Your task to perform on an android device: Open Google Maps and go to "Timeline" Image 0: 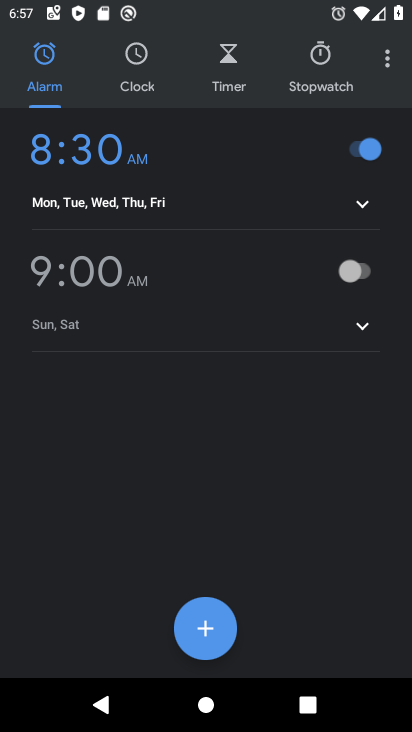
Step 0: press home button
Your task to perform on an android device: Open Google Maps and go to "Timeline" Image 1: 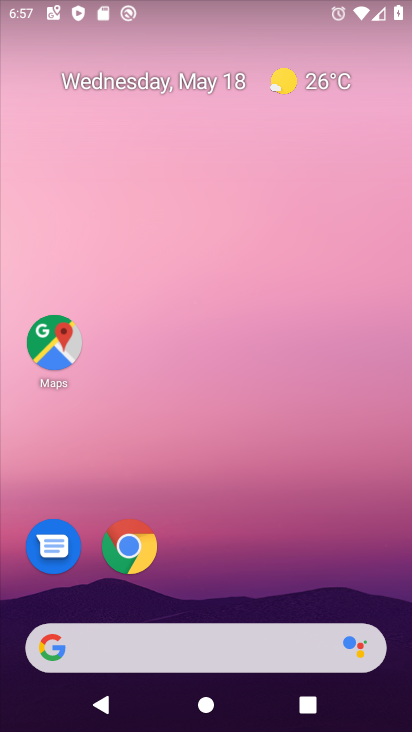
Step 1: drag from (384, 619) to (87, 34)
Your task to perform on an android device: Open Google Maps and go to "Timeline" Image 2: 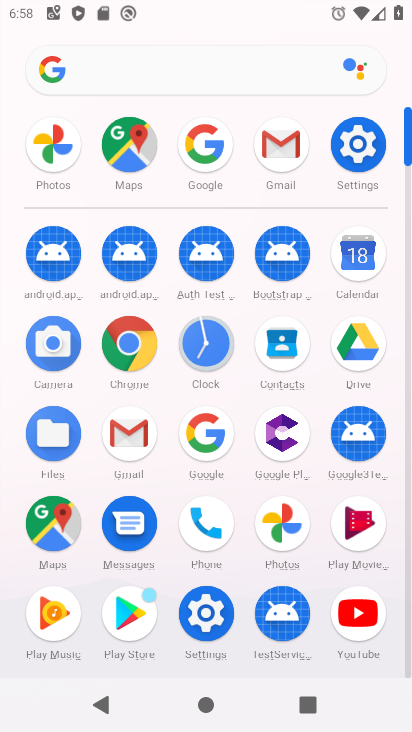
Step 2: click (138, 161)
Your task to perform on an android device: Open Google Maps and go to "Timeline" Image 3: 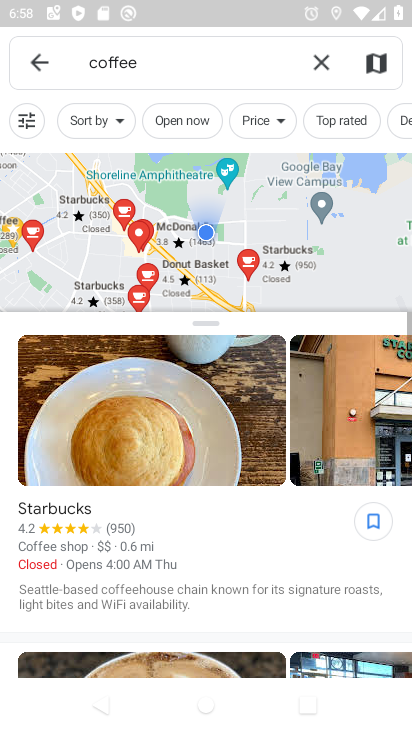
Step 3: click (314, 69)
Your task to perform on an android device: Open Google Maps and go to "Timeline" Image 4: 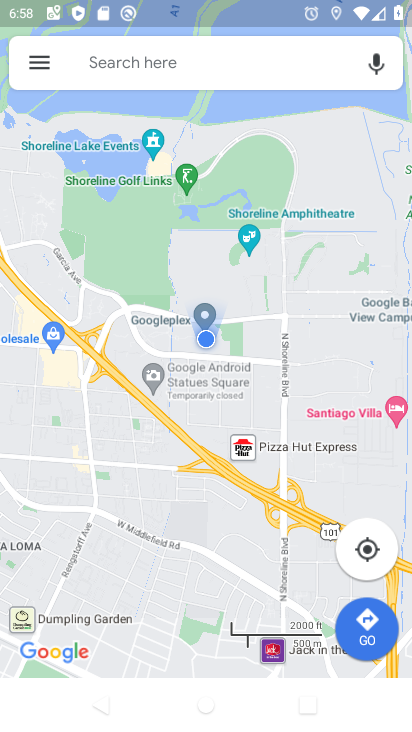
Step 4: click (36, 65)
Your task to perform on an android device: Open Google Maps and go to "Timeline" Image 5: 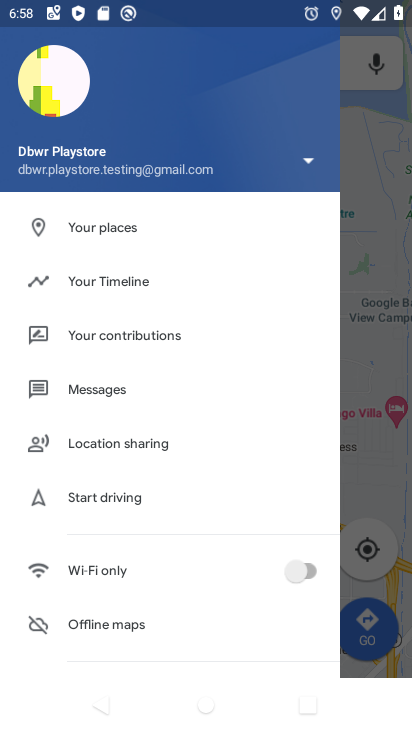
Step 5: click (161, 286)
Your task to perform on an android device: Open Google Maps and go to "Timeline" Image 6: 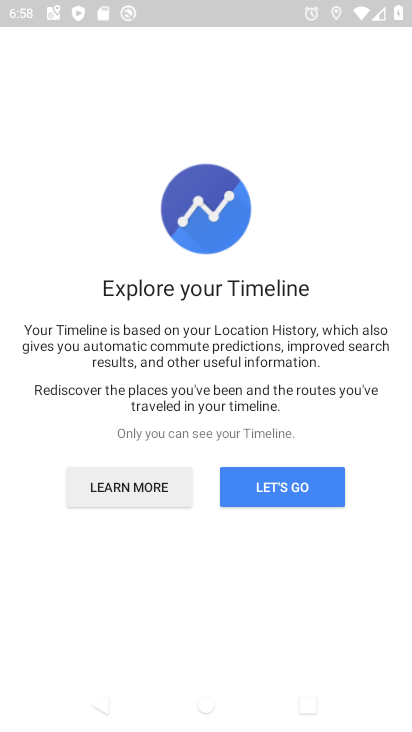
Step 6: task complete